Your task to perform on an android device: uninstall "ColorNote Notepad Notes" Image 0: 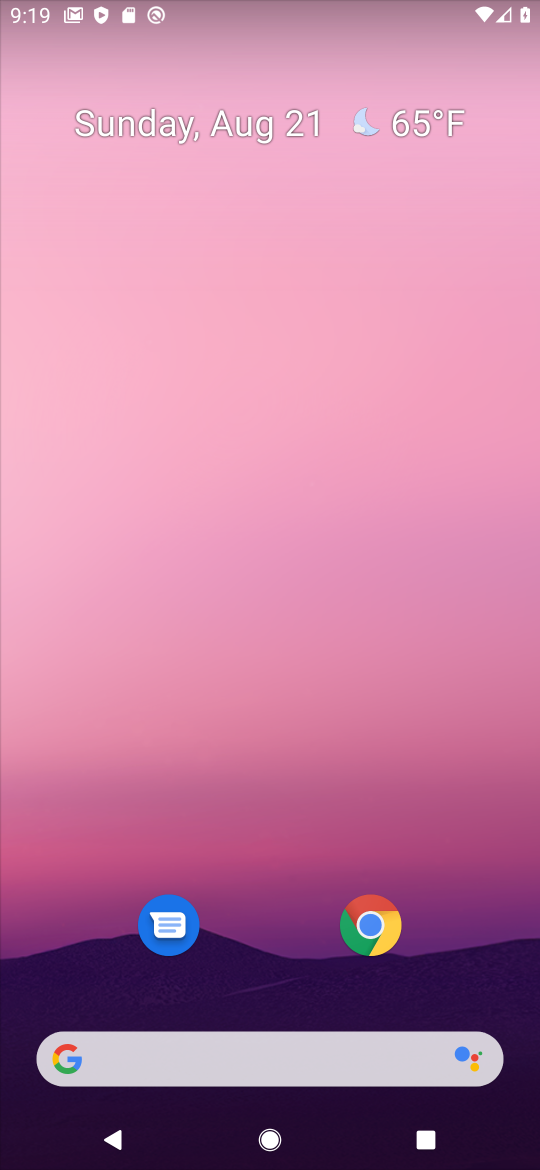
Step 0: drag from (231, 961) to (297, 67)
Your task to perform on an android device: uninstall "ColorNote Notepad Notes" Image 1: 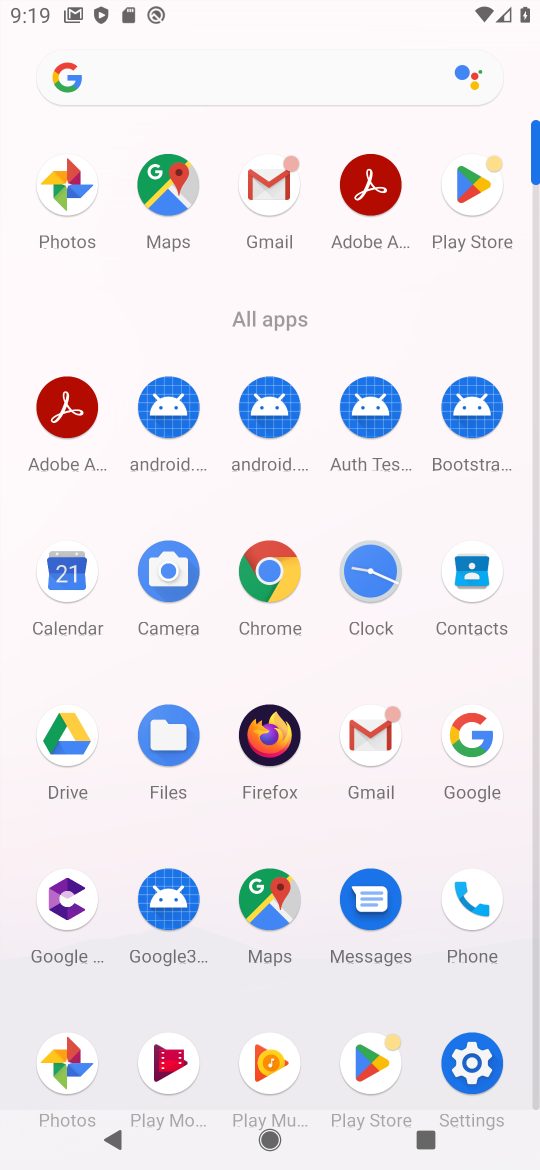
Step 1: click (498, 181)
Your task to perform on an android device: uninstall "ColorNote Notepad Notes" Image 2: 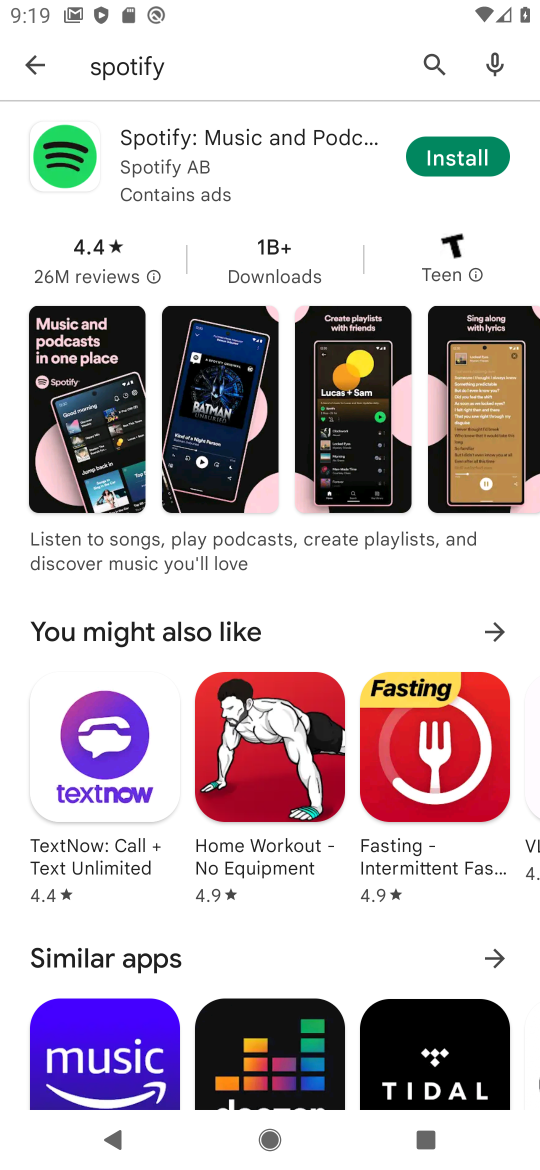
Step 2: click (423, 59)
Your task to perform on an android device: uninstall "ColorNote Notepad Notes" Image 3: 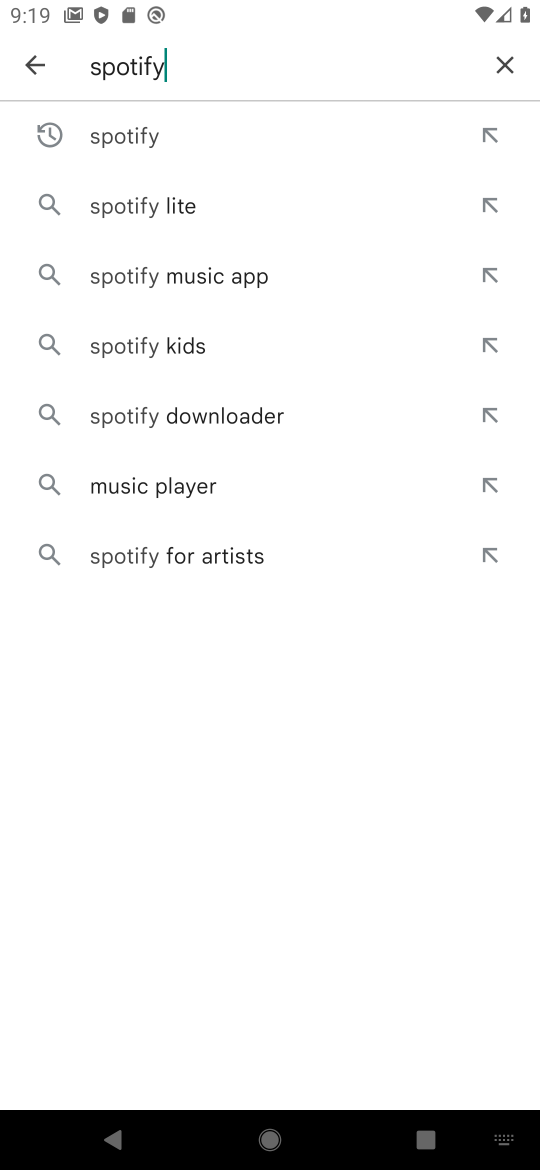
Step 3: click (498, 53)
Your task to perform on an android device: uninstall "ColorNote Notepad Notes" Image 4: 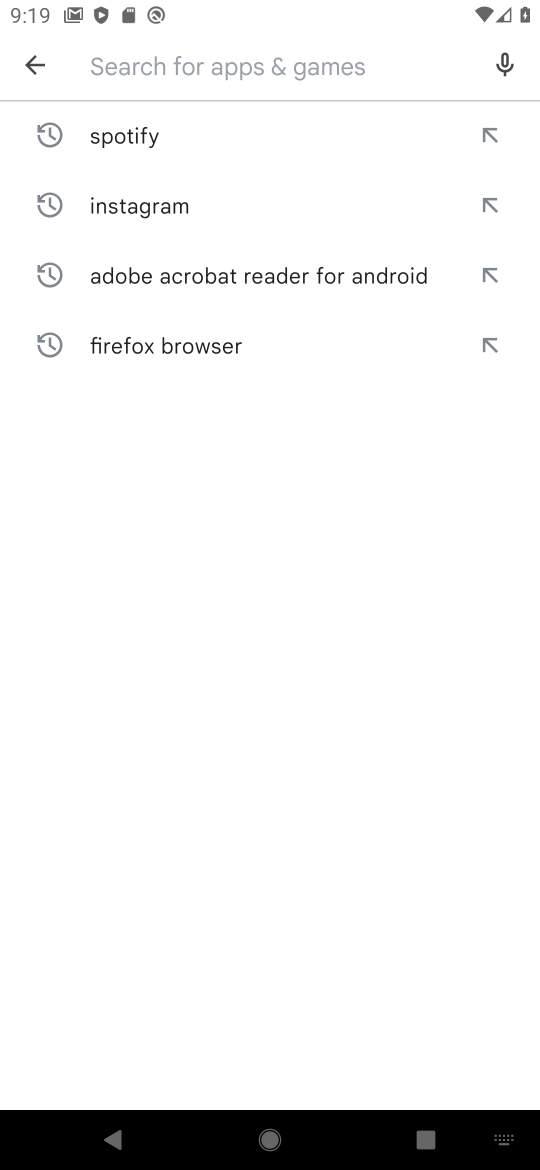
Step 4: click (129, 52)
Your task to perform on an android device: uninstall "ColorNote Notepad Notes" Image 5: 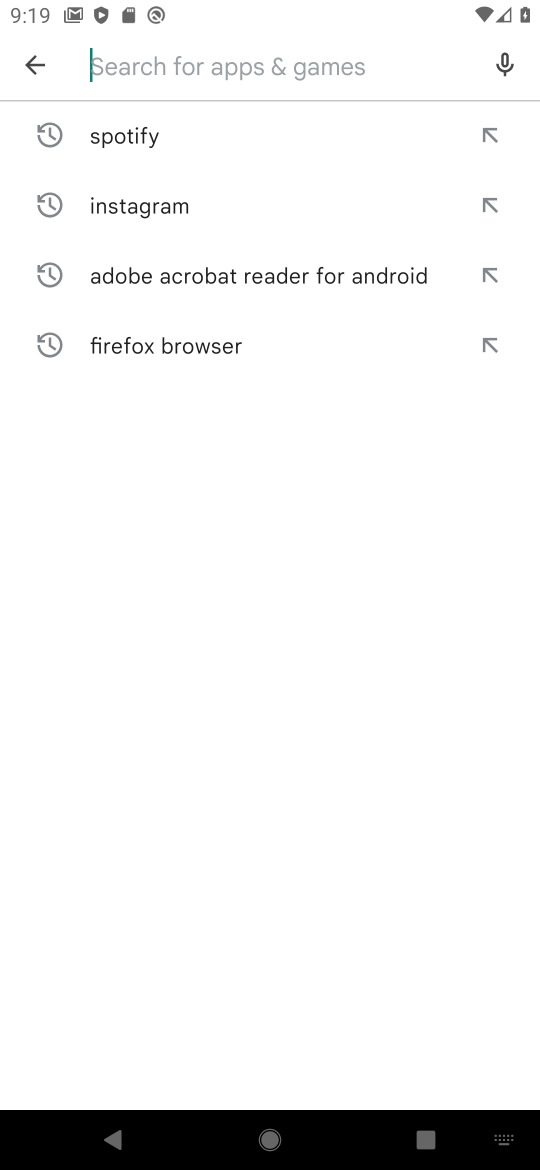
Step 5: type "ColorNote Notepad Notes"
Your task to perform on an android device: uninstall "ColorNote Notepad Notes" Image 6: 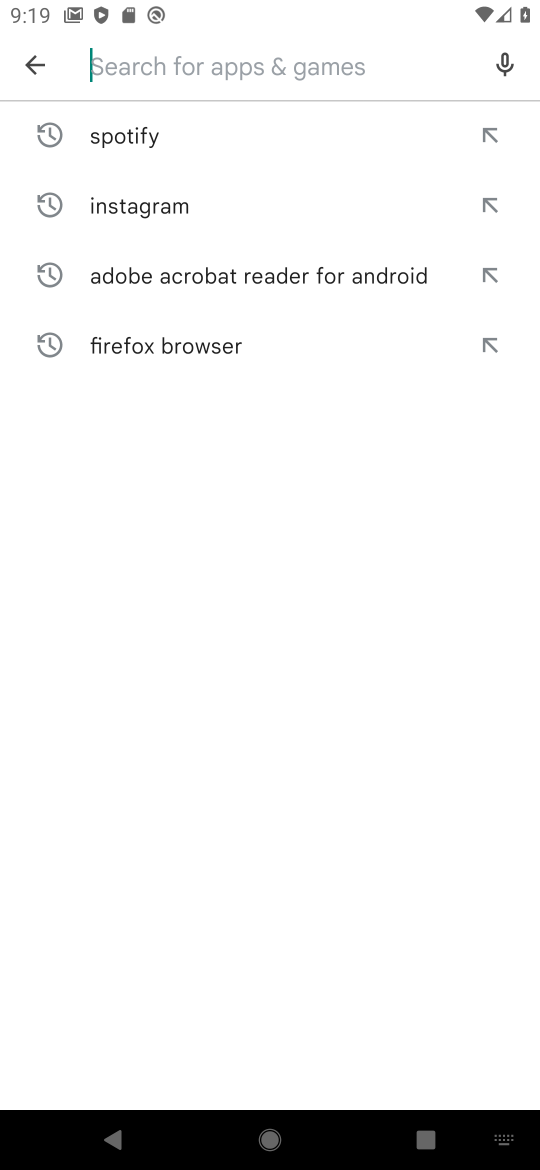
Step 6: click (188, 687)
Your task to perform on an android device: uninstall "ColorNote Notepad Notes" Image 7: 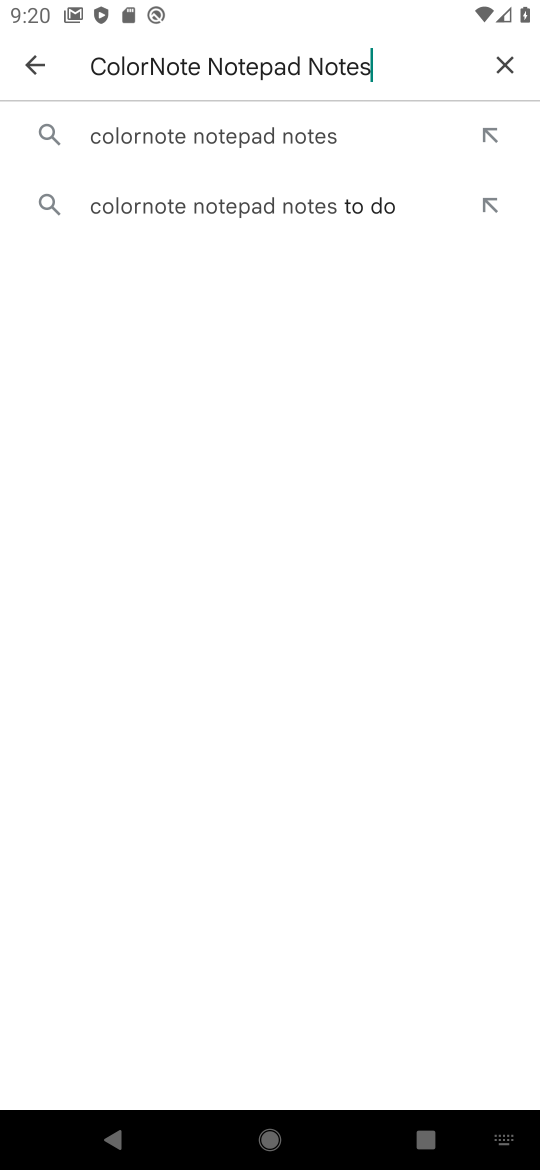
Step 7: click (219, 133)
Your task to perform on an android device: uninstall "ColorNote Notepad Notes" Image 8: 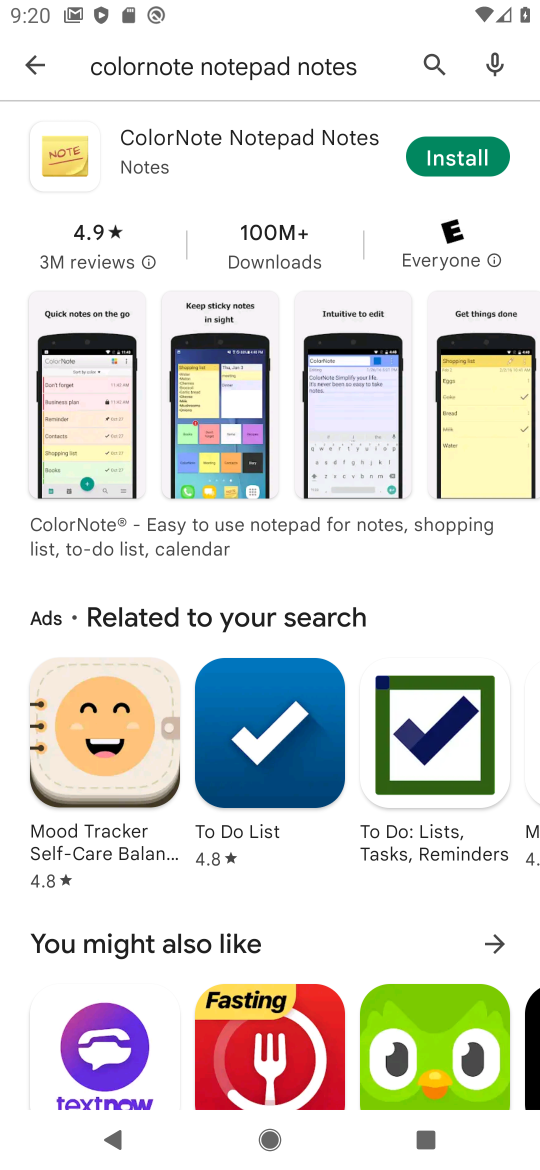
Step 8: task complete